Your task to perform on an android device: Open Google Maps Image 0: 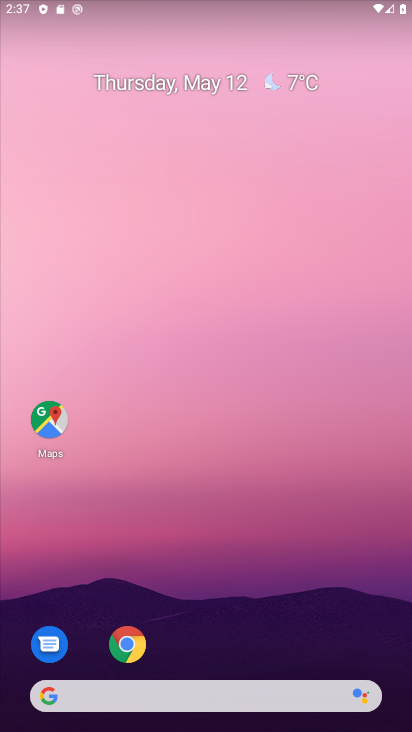
Step 0: click (57, 429)
Your task to perform on an android device: Open Google Maps Image 1: 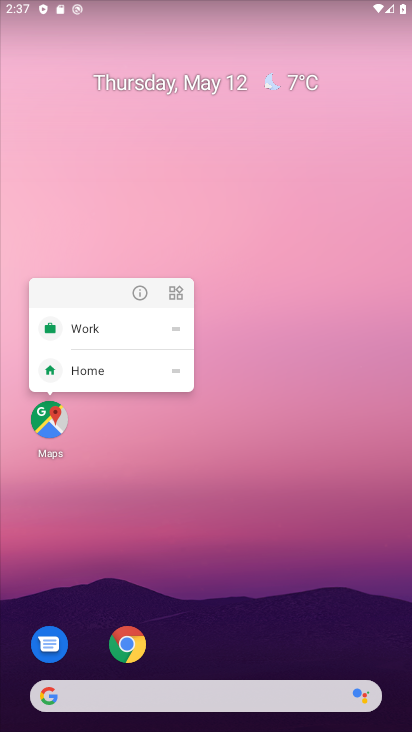
Step 1: click (53, 423)
Your task to perform on an android device: Open Google Maps Image 2: 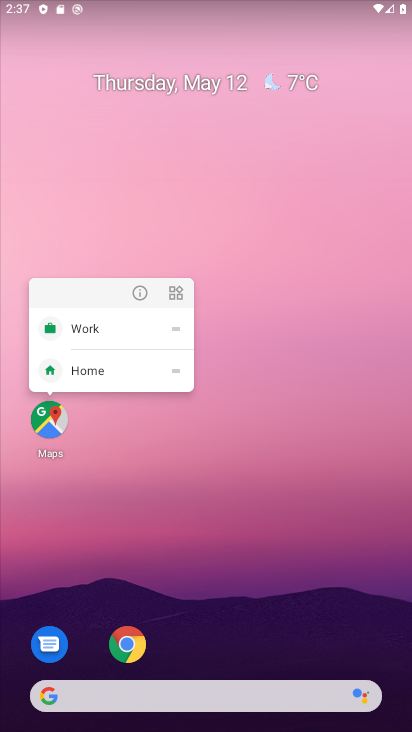
Step 2: click (50, 425)
Your task to perform on an android device: Open Google Maps Image 3: 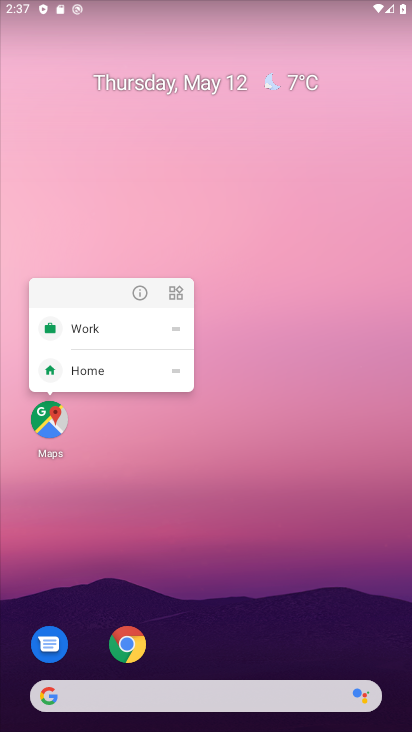
Step 3: click (50, 425)
Your task to perform on an android device: Open Google Maps Image 4: 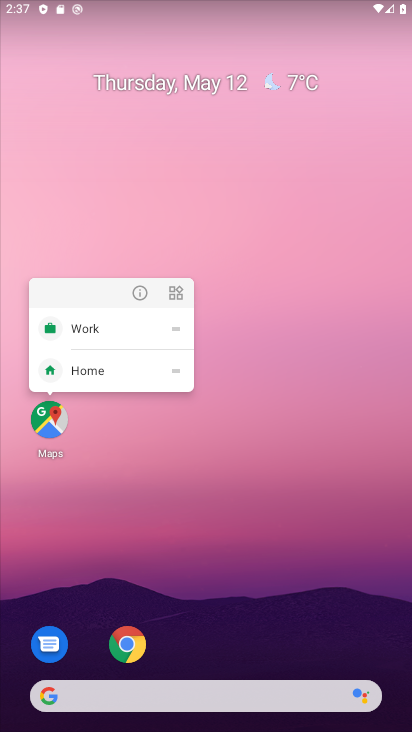
Step 4: click (35, 422)
Your task to perform on an android device: Open Google Maps Image 5: 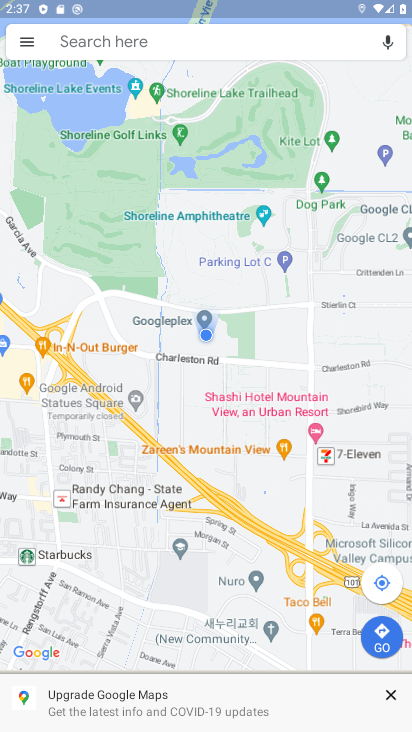
Step 5: task complete